Your task to perform on an android device: Open Chrome and go to settings Image 0: 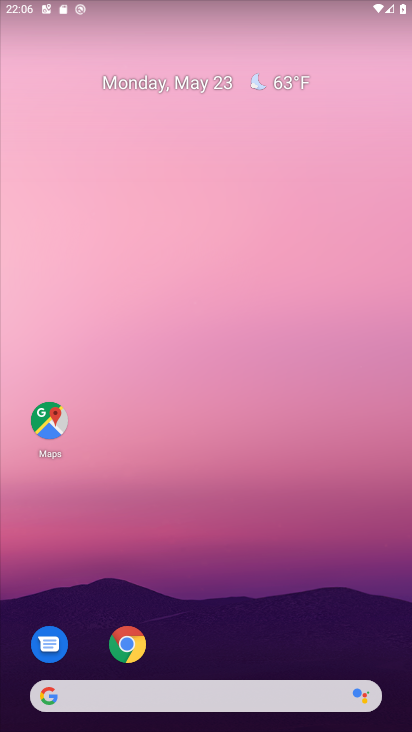
Step 0: drag from (196, 659) to (204, 10)
Your task to perform on an android device: Open Chrome and go to settings Image 1: 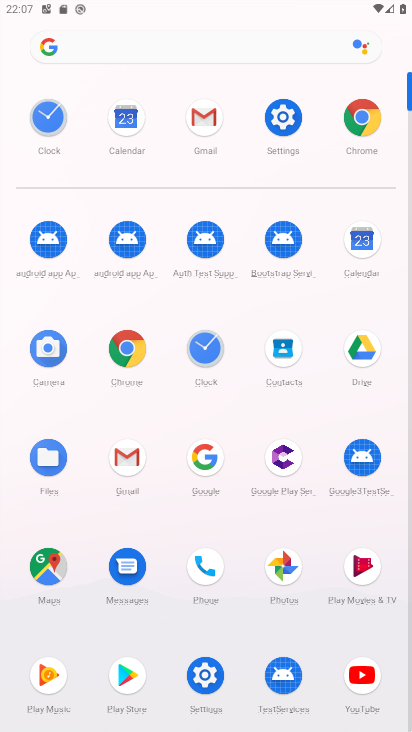
Step 1: click (127, 344)
Your task to perform on an android device: Open Chrome and go to settings Image 2: 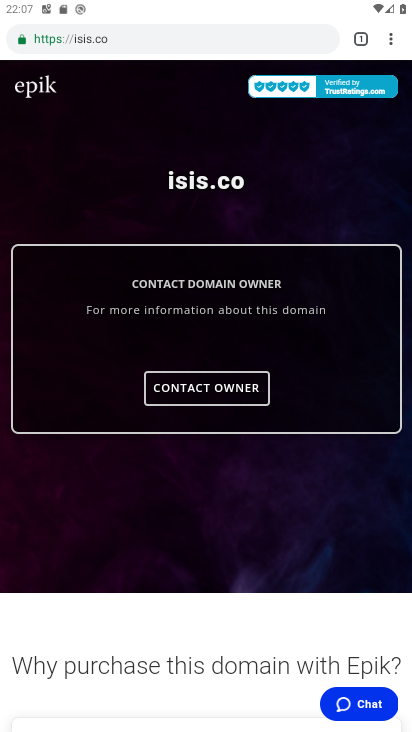
Step 2: click (389, 38)
Your task to perform on an android device: Open Chrome and go to settings Image 3: 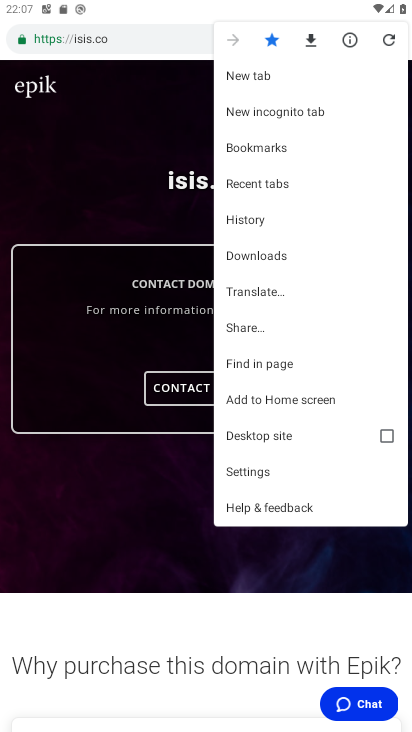
Step 3: click (268, 469)
Your task to perform on an android device: Open Chrome and go to settings Image 4: 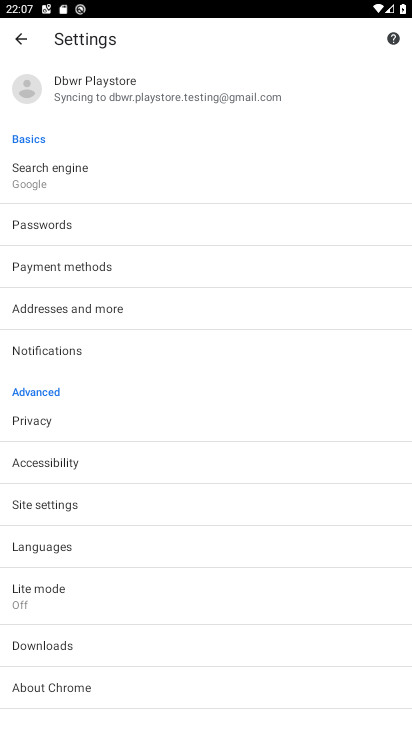
Step 4: task complete